Your task to perform on an android device: Go to settings Image 0: 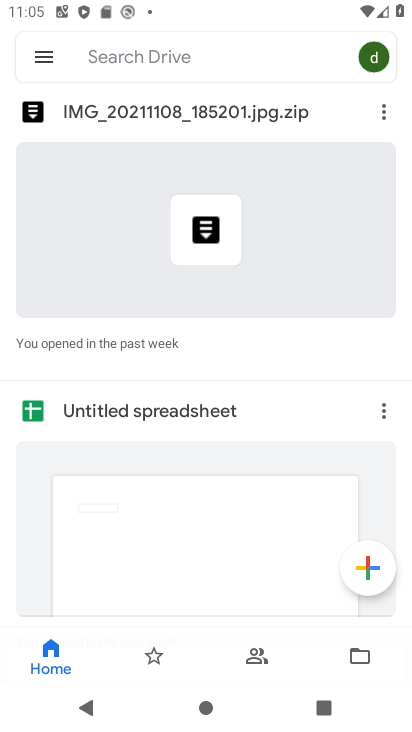
Step 0: press home button
Your task to perform on an android device: Go to settings Image 1: 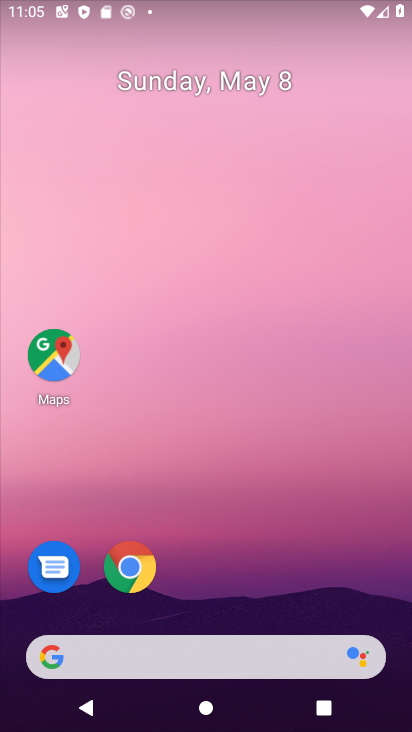
Step 1: drag from (203, 620) to (238, 71)
Your task to perform on an android device: Go to settings Image 2: 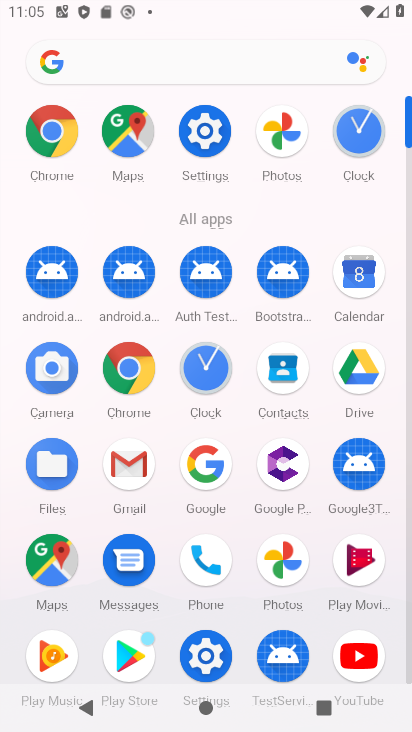
Step 2: click (201, 127)
Your task to perform on an android device: Go to settings Image 3: 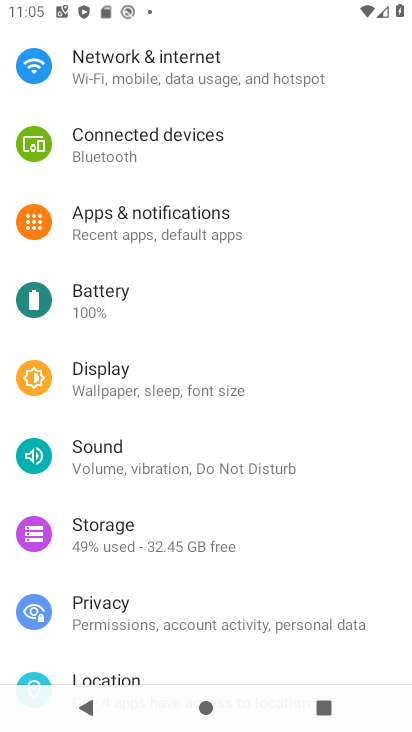
Step 3: task complete